Your task to perform on an android device: change the clock display to analog Image 0: 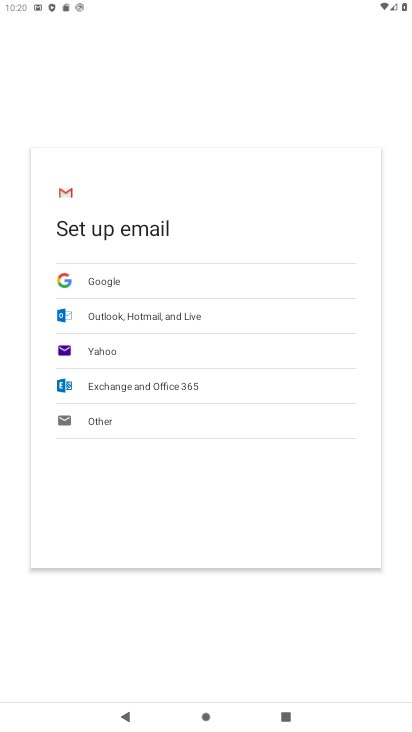
Step 0: press back button
Your task to perform on an android device: change the clock display to analog Image 1: 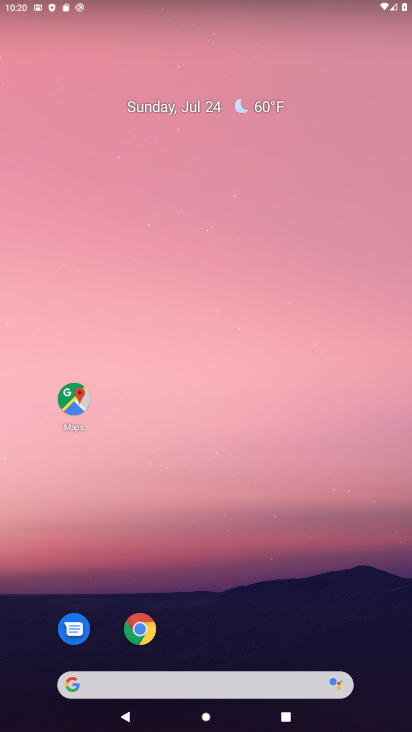
Step 1: drag from (206, 668) to (126, 129)
Your task to perform on an android device: change the clock display to analog Image 2: 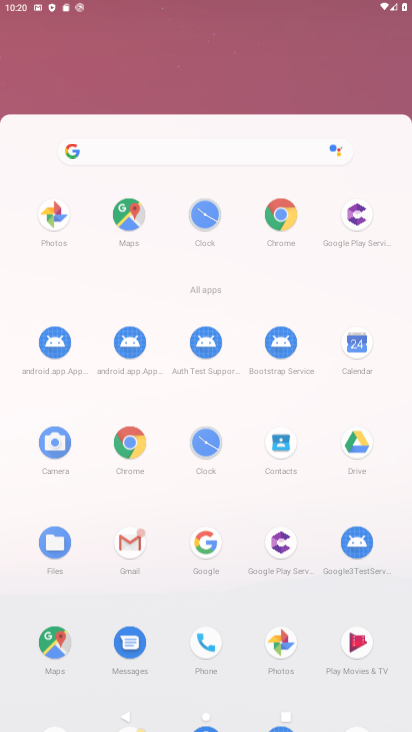
Step 2: drag from (219, 526) to (171, 153)
Your task to perform on an android device: change the clock display to analog Image 3: 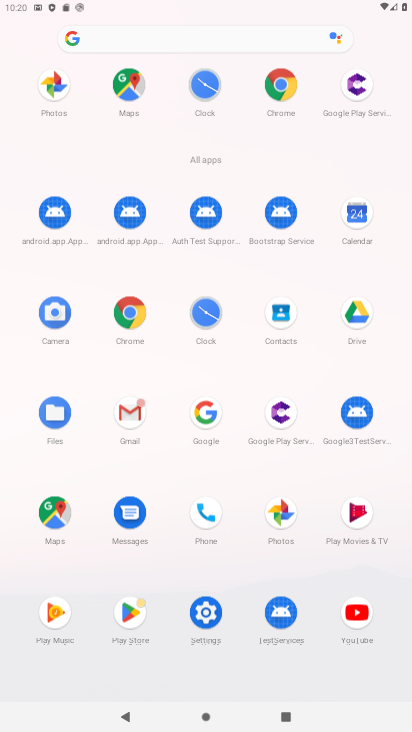
Step 3: drag from (222, 573) to (176, 187)
Your task to perform on an android device: change the clock display to analog Image 4: 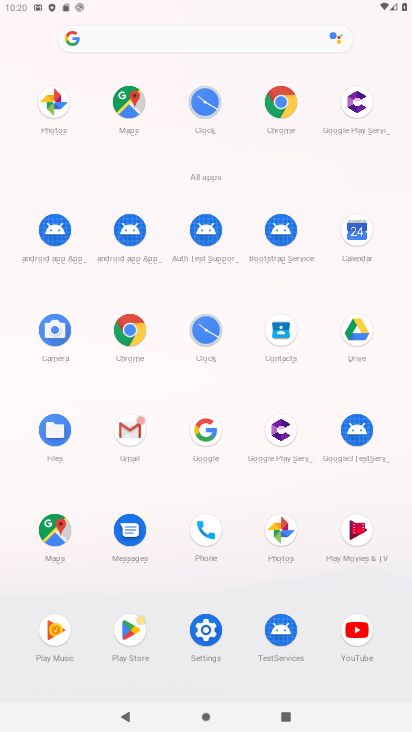
Step 4: click (202, 330)
Your task to perform on an android device: change the clock display to analog Image 5: 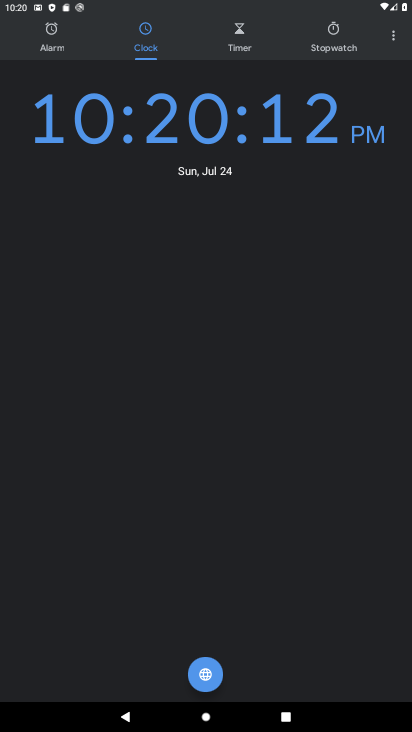
Step 5: click (203, 335)
Your task to perform on an android device: change the clock display to analog Image 6: 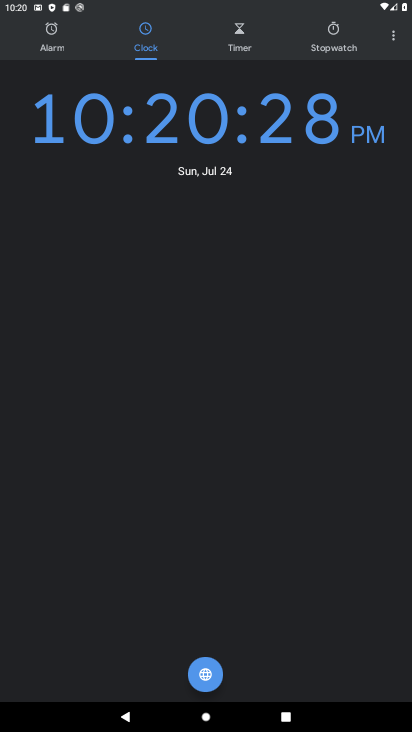
Step 6: click (389, 43)
Your task to perform on an android device: change the clock display to analog Image 7: 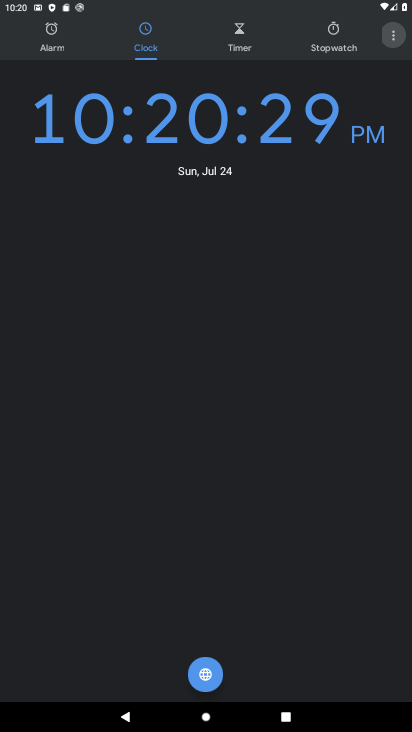
Step 7: click (401, 39)
Your task to perform on an android device: change the clock display to analog Image 8: 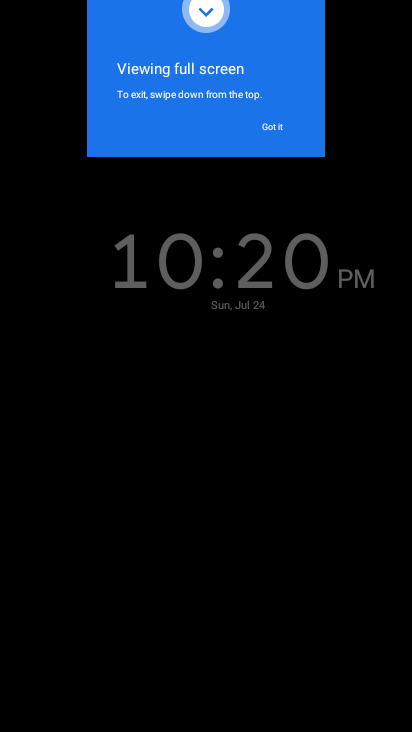
Step 8: press back button
Your task to perform on an android device: change the clock display to analog Image 9: 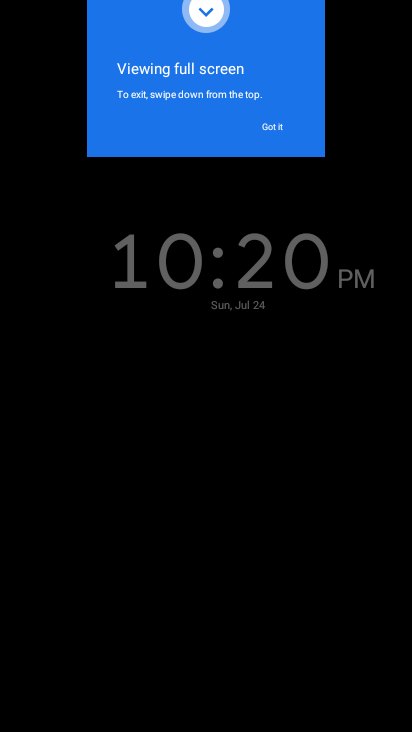
Step 9: click (277, 122)
Your task to perform on an android device: change the clock display to analog Image 10: 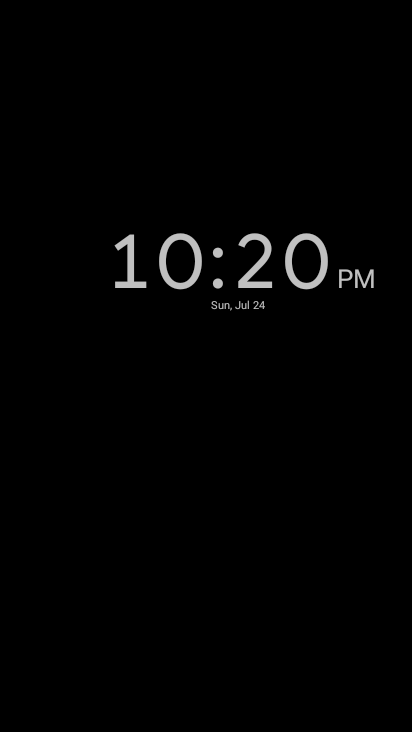
Step 10: press back button
Your task to perform on an android device: change the clock display to analog Image 11: 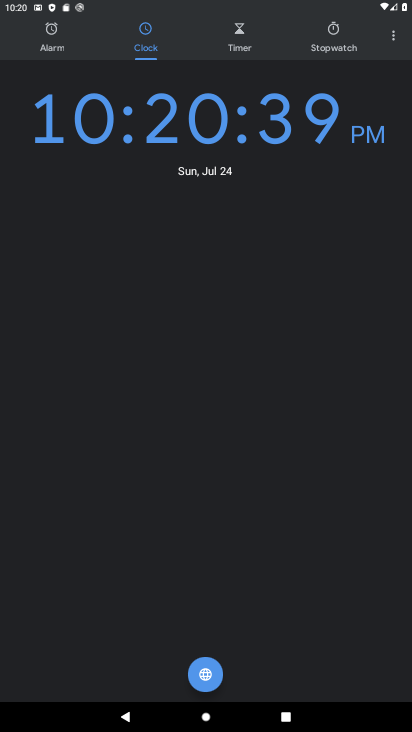
Step 11: drag from (168, 106) to (402, 108)
Your task to perform on an android device: change the clock display to analog Image 12: 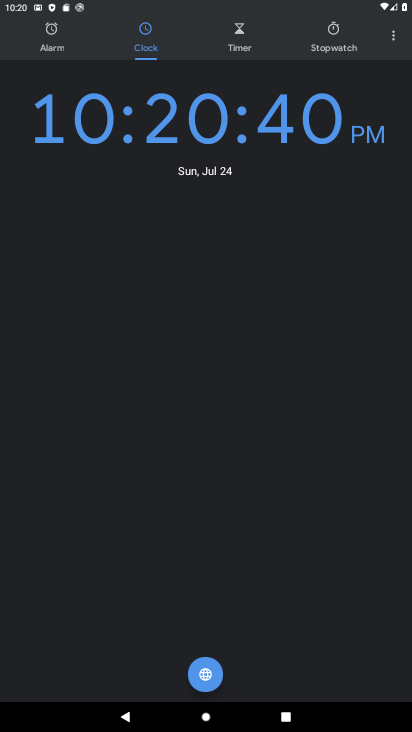
Step 12: click (390, 43)
Your task to perform on an android device: change the clock display to analog Image 13: 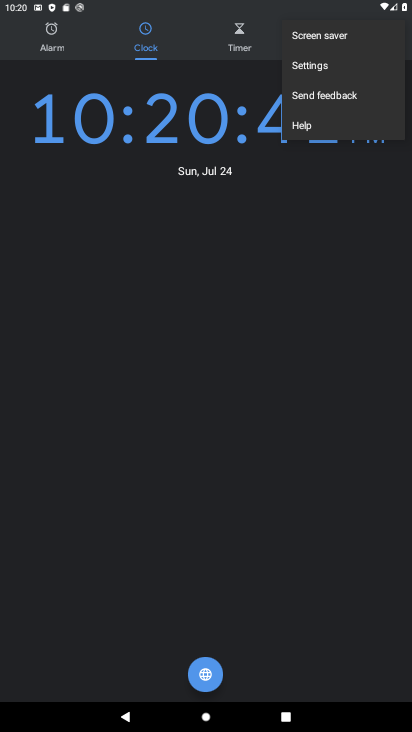
Step 13: click (324, 65)
Your task to perform on an android device: change the clock display to analog Image 14: 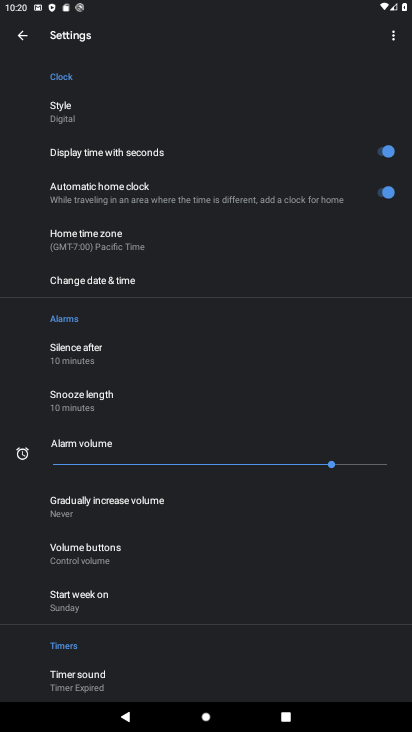
Step 14: click (70, 113)
Your task to perform on an android device: change the clock display to analog Image 15: 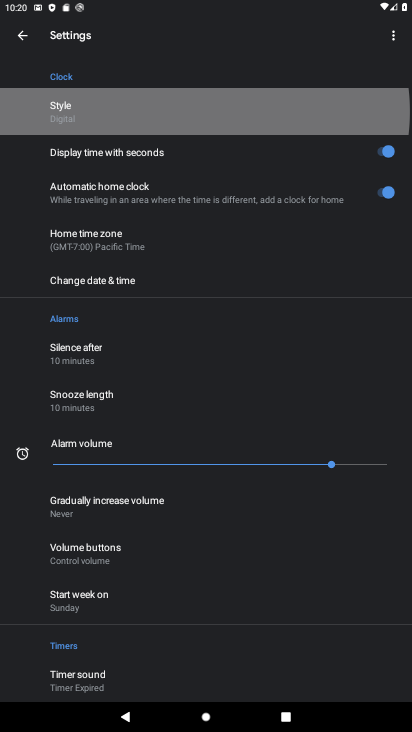
Step 15: click (71, 117)
Your task to perform on an android device: change the clock display to analog Image 16: 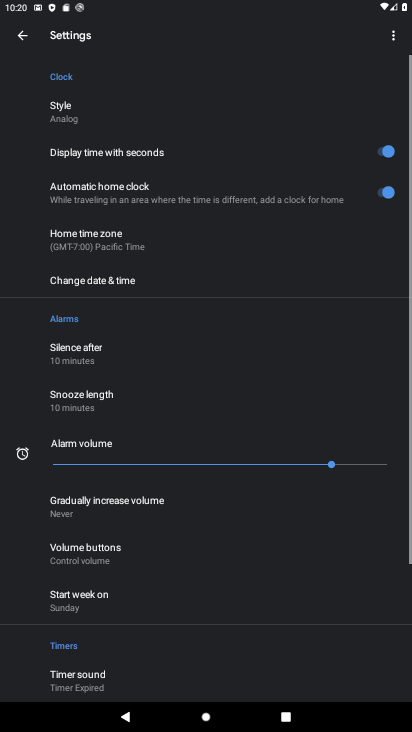
Step 16: click (63, 119)
Your task to perform on an android device: change the clock display to analog Image 17: 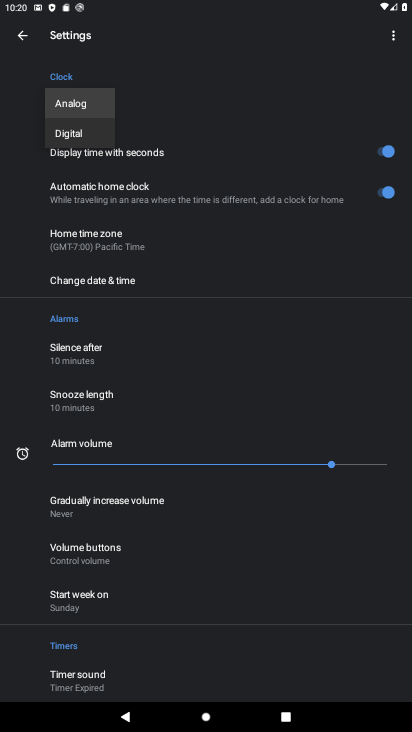
Step 17: click (75, 138)
Your task to perform on an android device: change the clock display to analog Image 18: 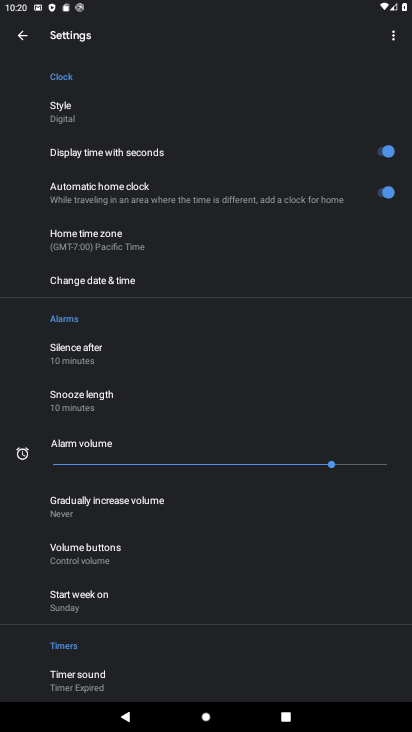
Step 18: task complete